Your task to perform on an android device: Go to network settings Image 0: 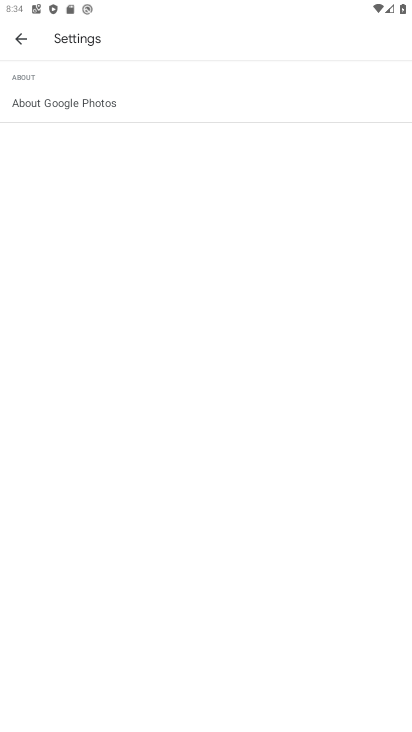
Step 0: press home button
Your task to perform on an android device: Go to network settings Image 1: 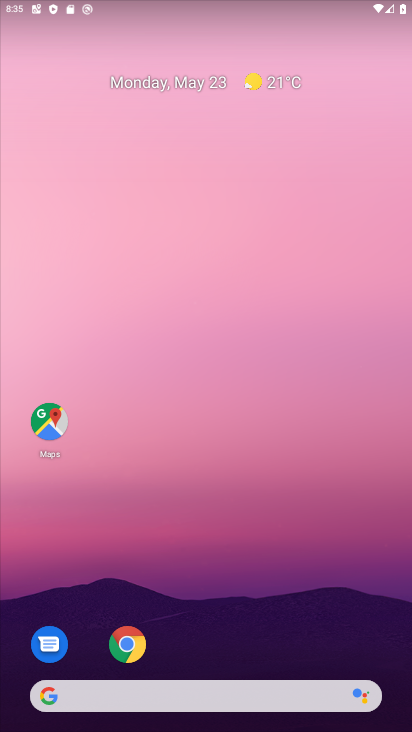
Step 1: drag from (102, 718) to (129, 42)
Your task to perform on an android device: Go to network settings Image 2: 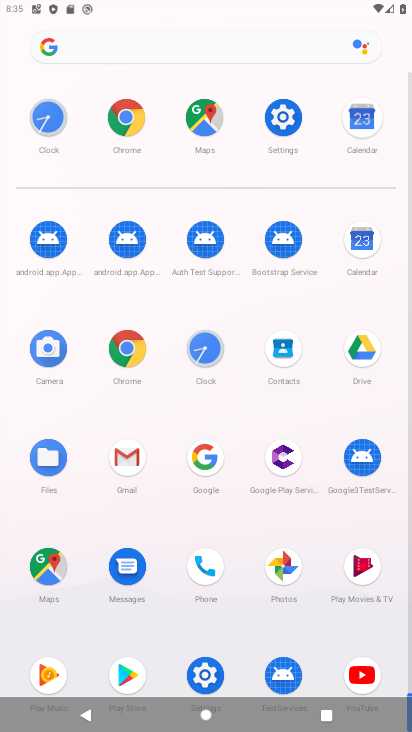
Step 2: click (279, 111)
Your task to perform on an android device: Go to network settings Image 3: 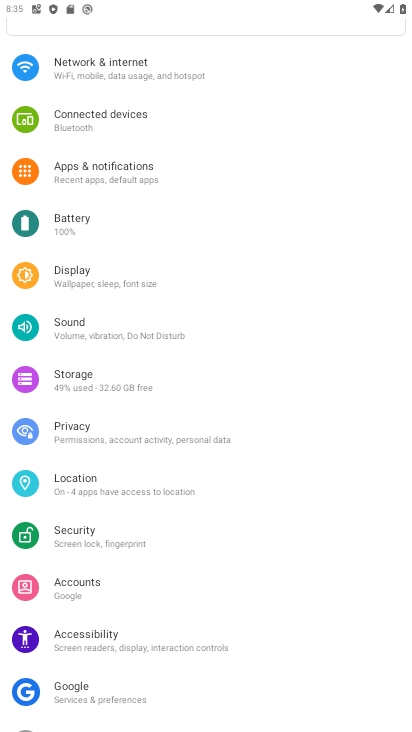
Step 3: click (189, 73)
Your task to perform on an android device: Go to network settings Image 4: 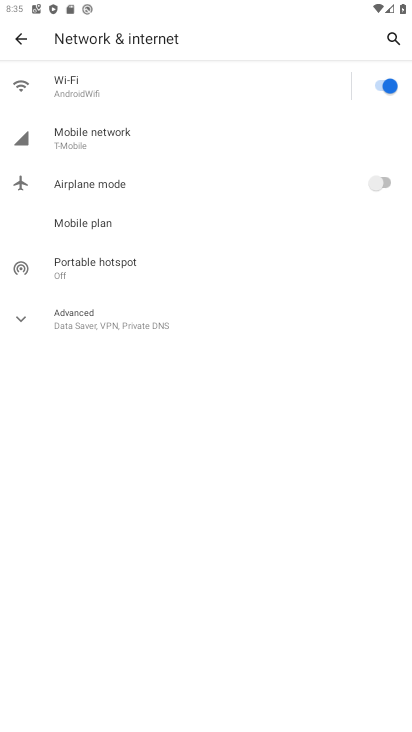
Step 4: task complete